Your task to perform on an android device: Go to settings Image 0: 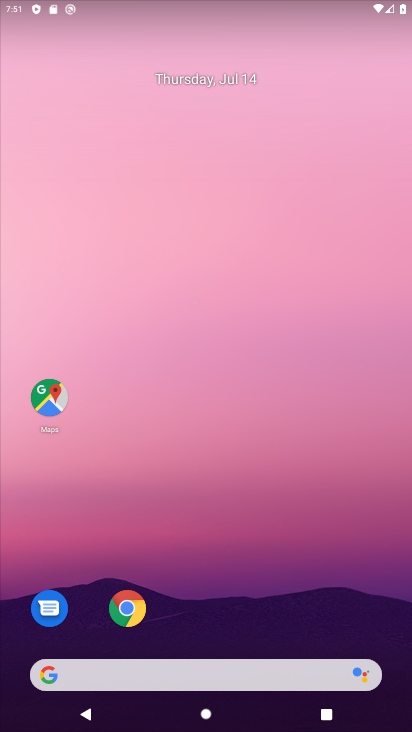
Step 0: drag from (221, 479) to (167, 174)
Your task to perform on an android device: Go to settings Image 1: 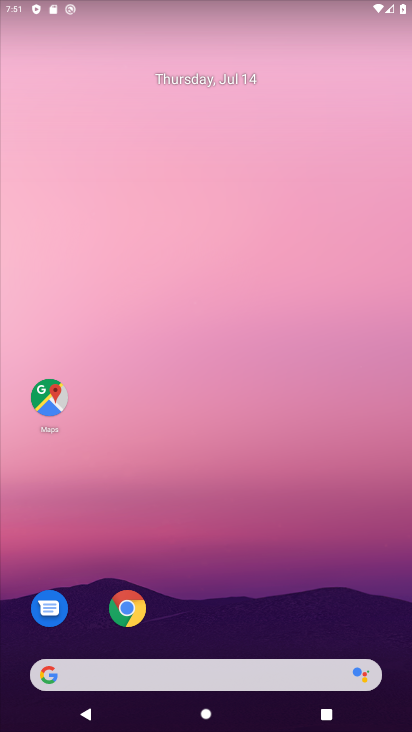
Step 1: drag from (242, 604) to (167, 16)
Your task to perform on an android device: Go to settings Image 2: 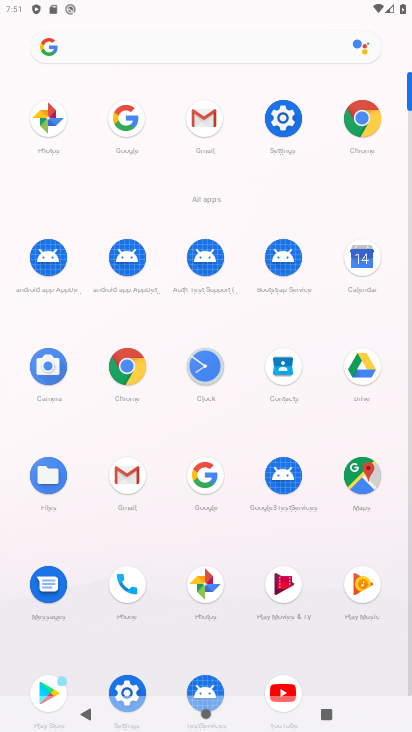
Step 2: click (284, 113)
Your task to perform on an android device: Go to settings Image 3: 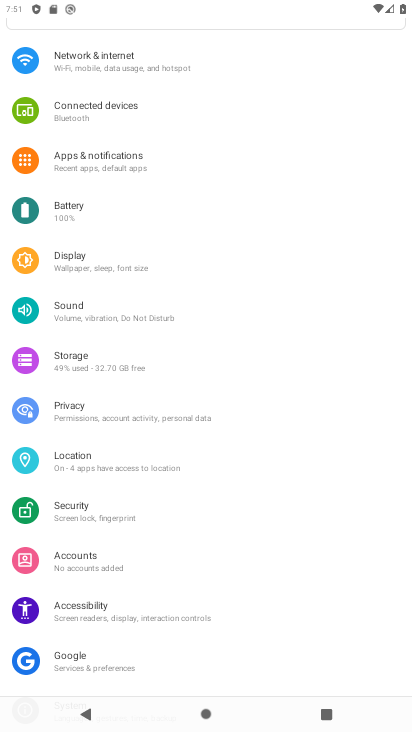
Step 3: task complete